Your task to perform on an android device: Open display settings Image 0: 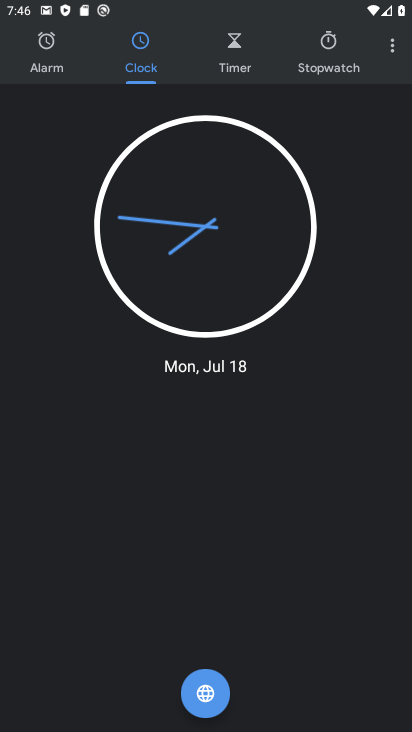
Step 0: press home button
Your task to perform on an android device: Open display settings Image 1: 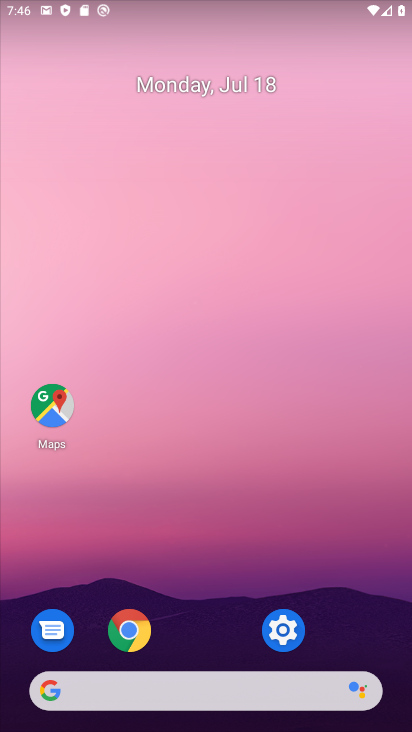
Step 1: drag from (260, 696) to (263, 166)
Your task to perform on an android device: Open display settings Image 2: 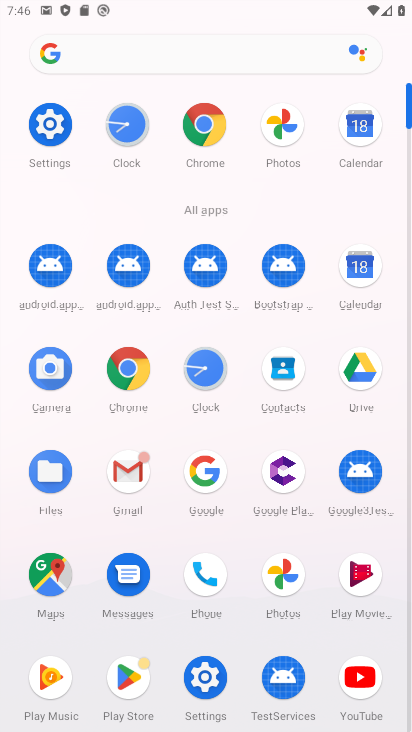
Step 2: click (212, 362)
Your task to perform on an android device: Open display settings Image 3: 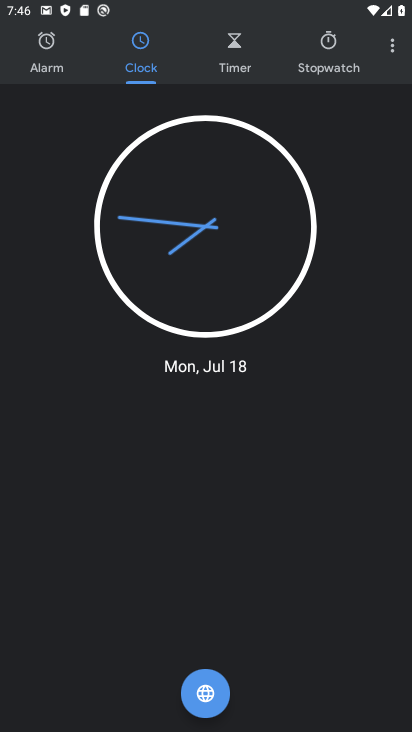
Step 3: click (380, 50)
Your task to perform on an android device: Open display settings Image 4: 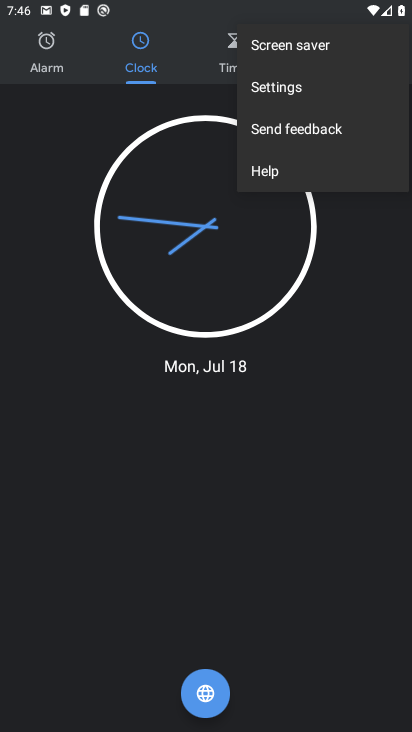
Step 4: click (274, 97)
Your task to perform on an android device: Open display settings Image 5: 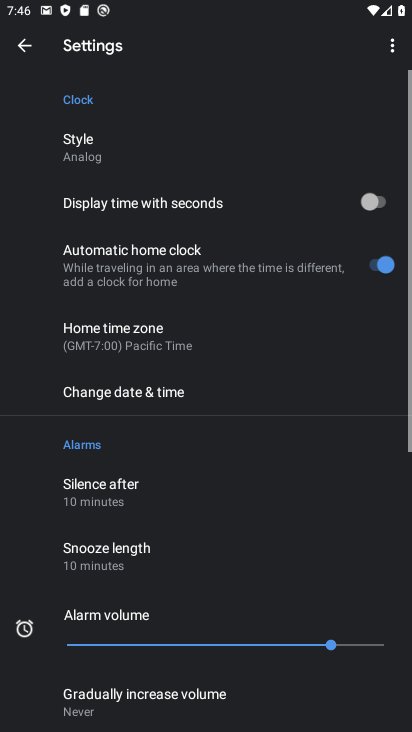
Step 5: click (127, 147)
Your task to perform on an android device: Open display settings Image 6: 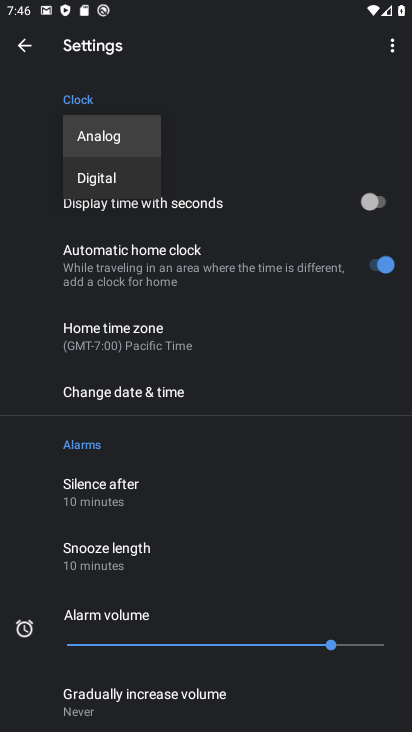
Step 6: click (117, 170)
Your task to perform on an android device: Open display settings Image 7: 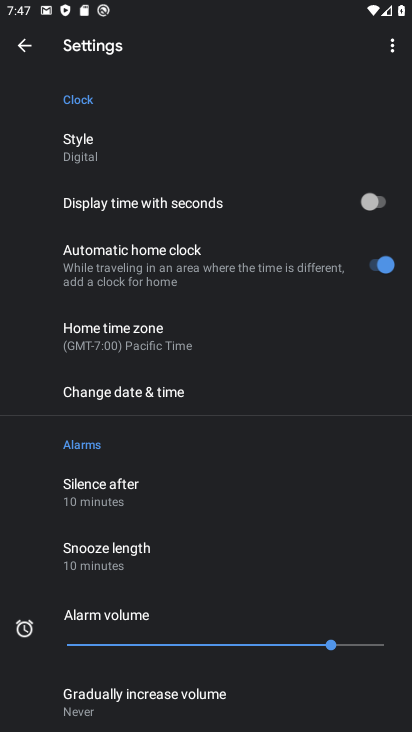
Step 7: task complete